Your task to perform on an android device: Do I have any events this weekend? Image 0: 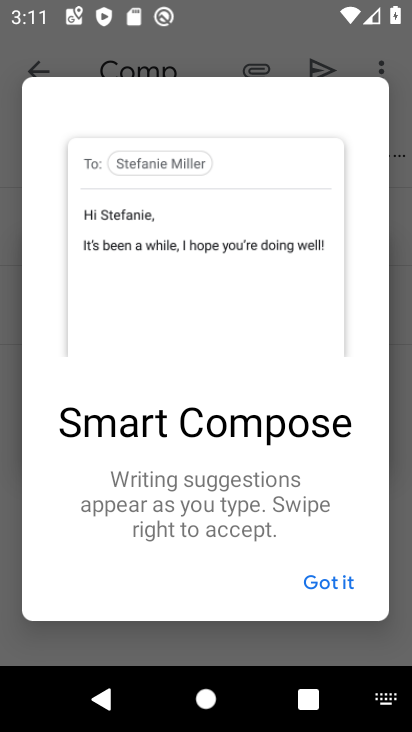
Step 0: press back button
Your task to perform on an android device: Do I have any events this weekend? Image 1: 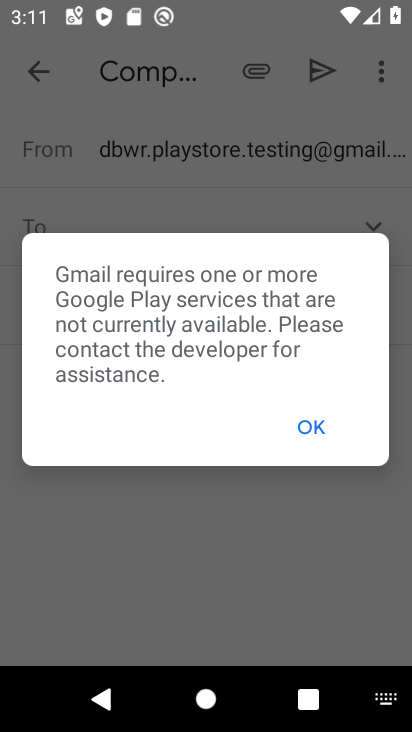
Step 1: press home button
Your task to perform on an android device: Do I have any events this weekend? Image 2: 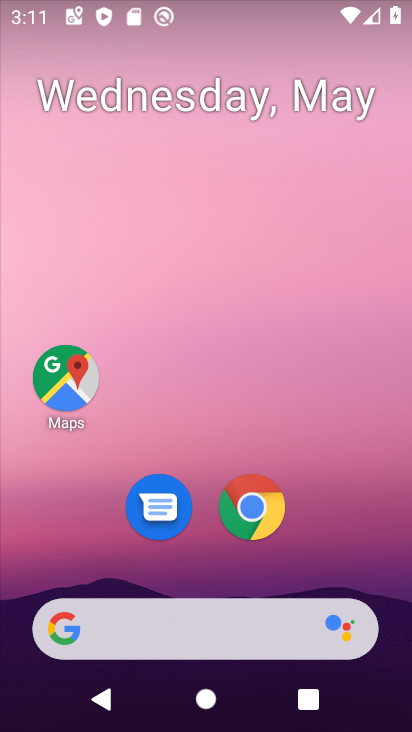
Step 2: drag from (163, 532) to (231, 44)
Your task to perform on an android device: Do I have any events this weekend? Image 3: 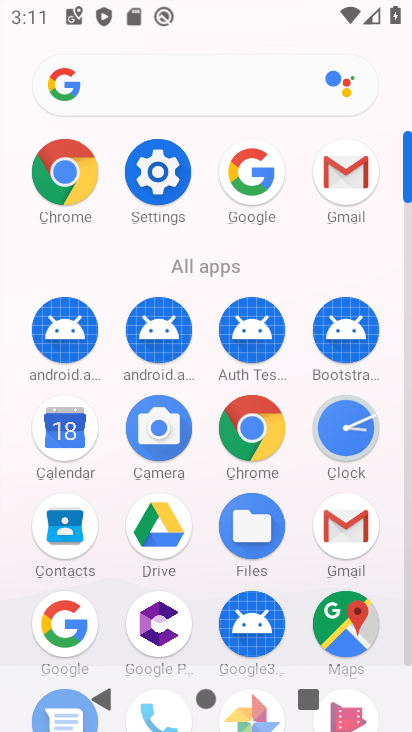
Step 3: click (66, 427)
Your task to perform on an android device: Do I have any events this weekend? Image 4: 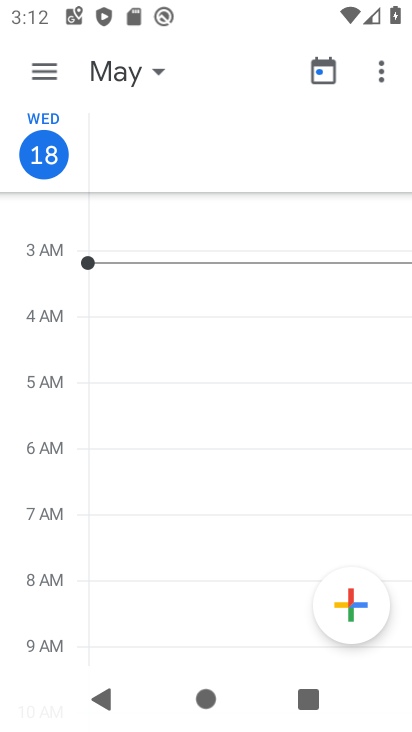
Step 4: click (40, 52)
Your task to perform on an android device: Do I have any events this weekend? Image 5: 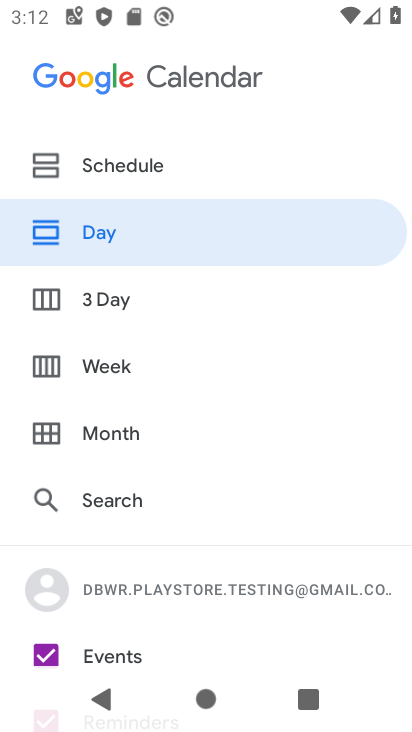
Step 5: click (128, 162)
Your task to perform on an android device: Do I have any events this weekend? Image 6: 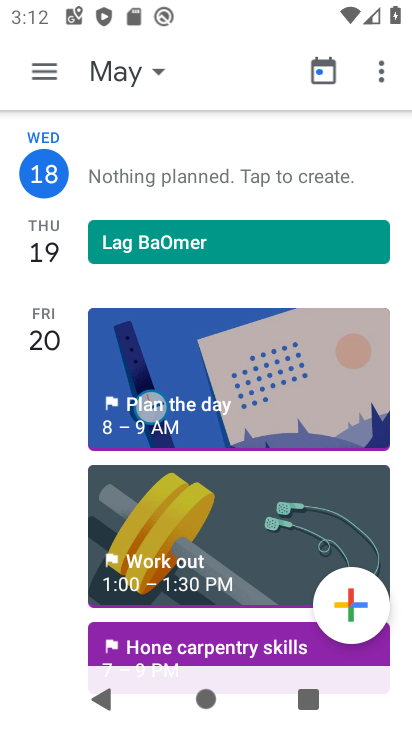
Step 6: drag from (197, 617) to (248, 131)
Your task to perform on an android device: Do I have any events this weekend? Image 7: 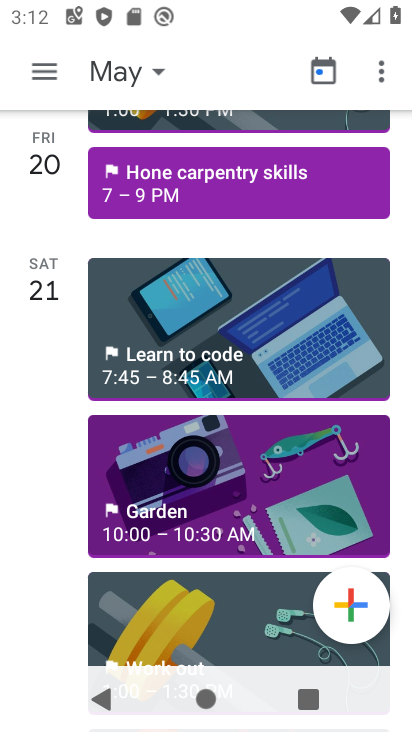
Step 7: click (192, 369)
Your task to perform on an android device: Do I have any events this weekend? Image 8: 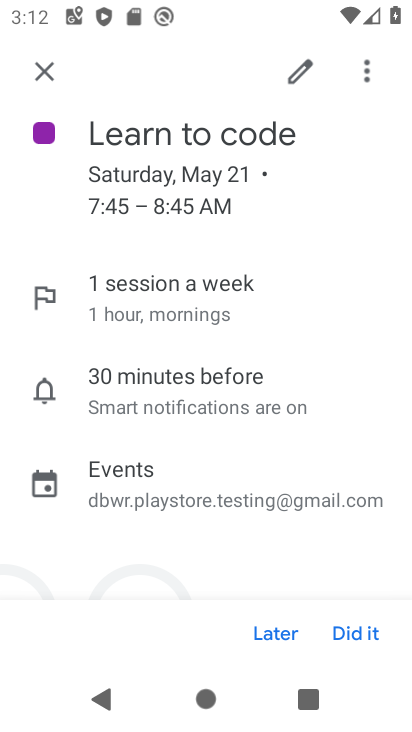
Step 8: task complete